Your task to perform on an android device: What is the speed of a jet? Image 0: 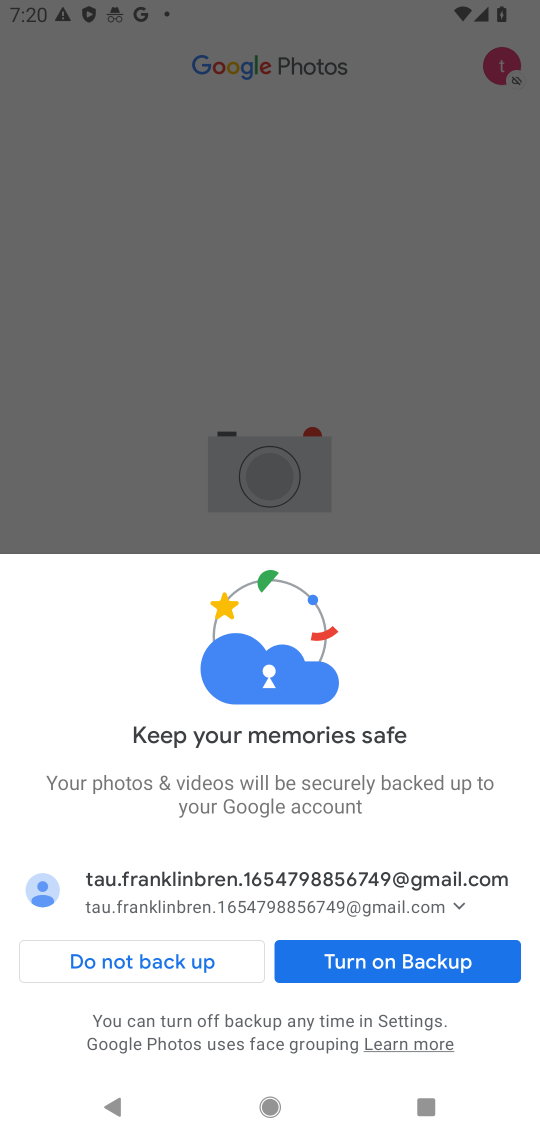
Step 0: press home button
Your task to perform on an android device: What is the speed of a jet? Image 1: 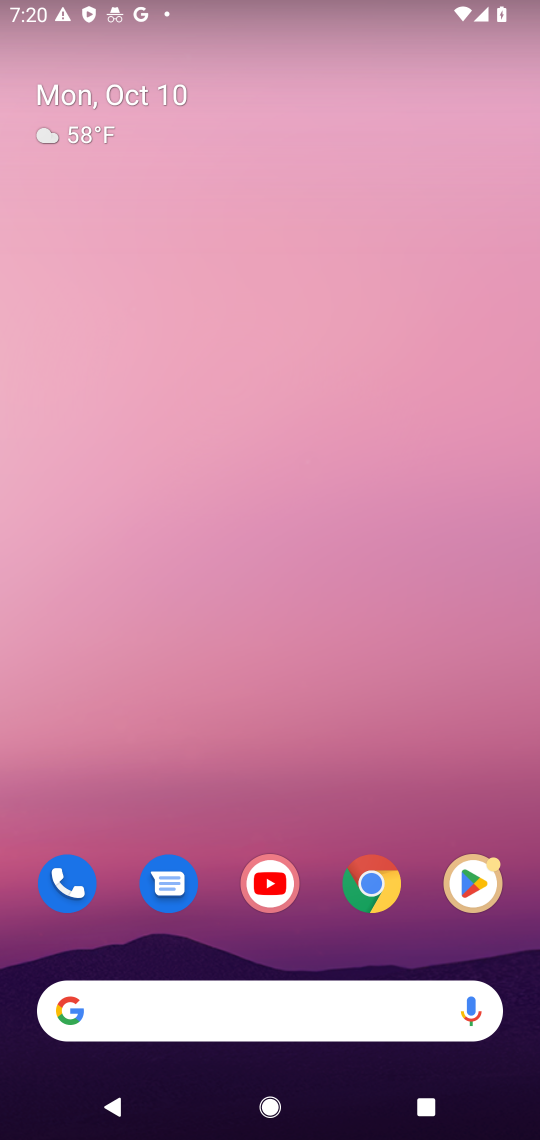
Step 1: drag from (401, 937) to (412, 869)
Your task to perform on an android device: What is the speed of a jet? Image 2: 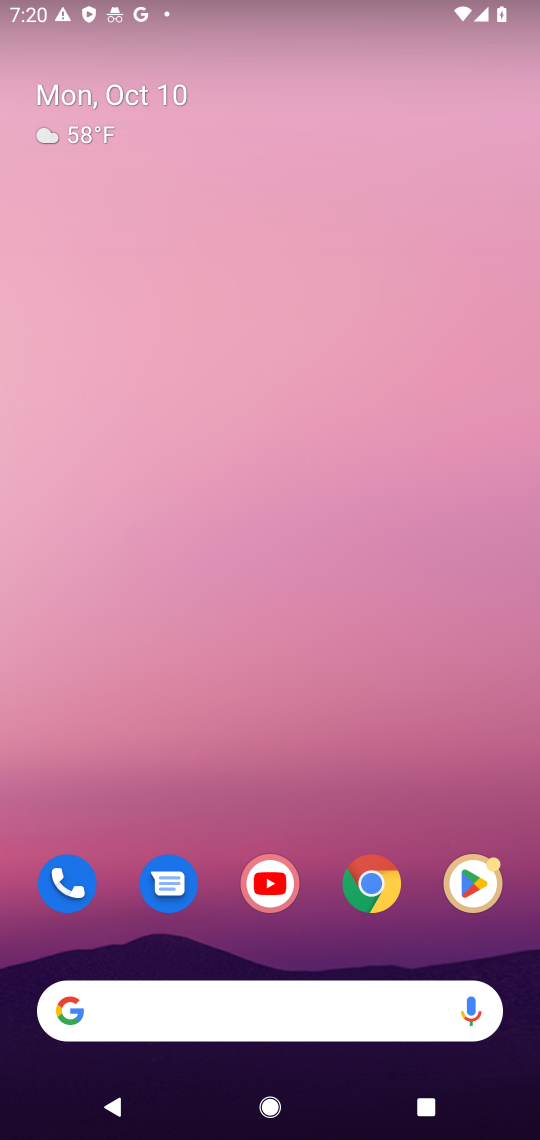
Step 2: drag from (364, 983) to (310, 227)
Your task to perform on an android device: What is the speed of a jet? Image 3: 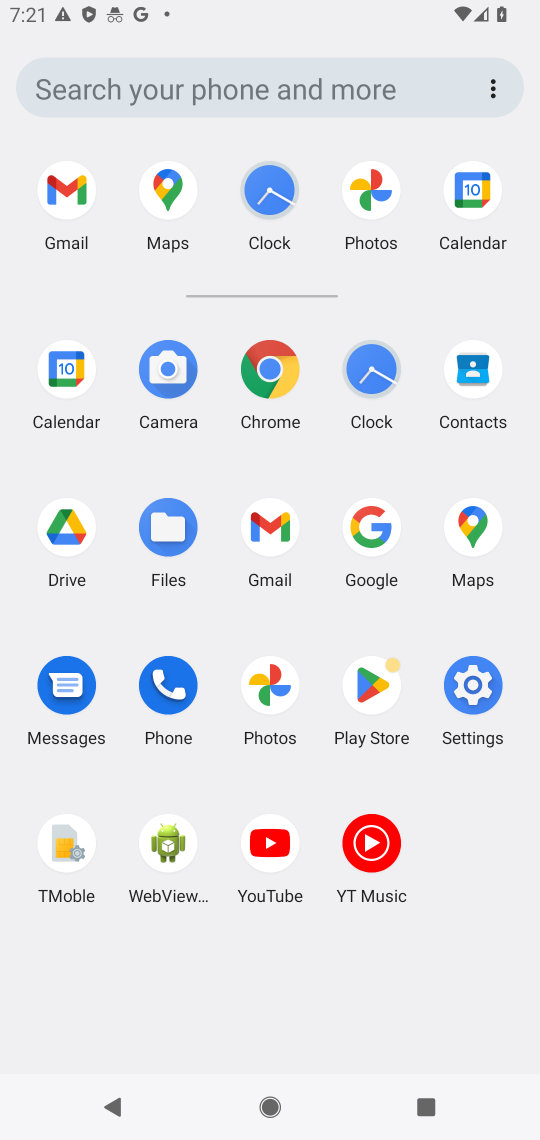
Step 3: click (371, 567)
Your task to perform on an android device: What is the speed of a jet? Image 4: 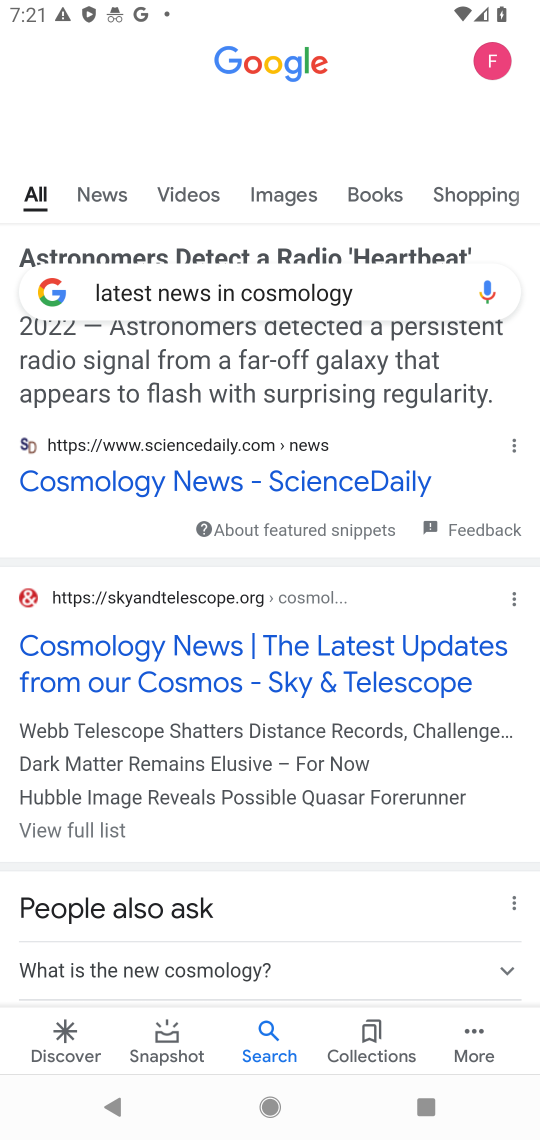
Step 4: click (448, 281)
Your task to perform on an android device: What is the speed of a jet? Image 5: 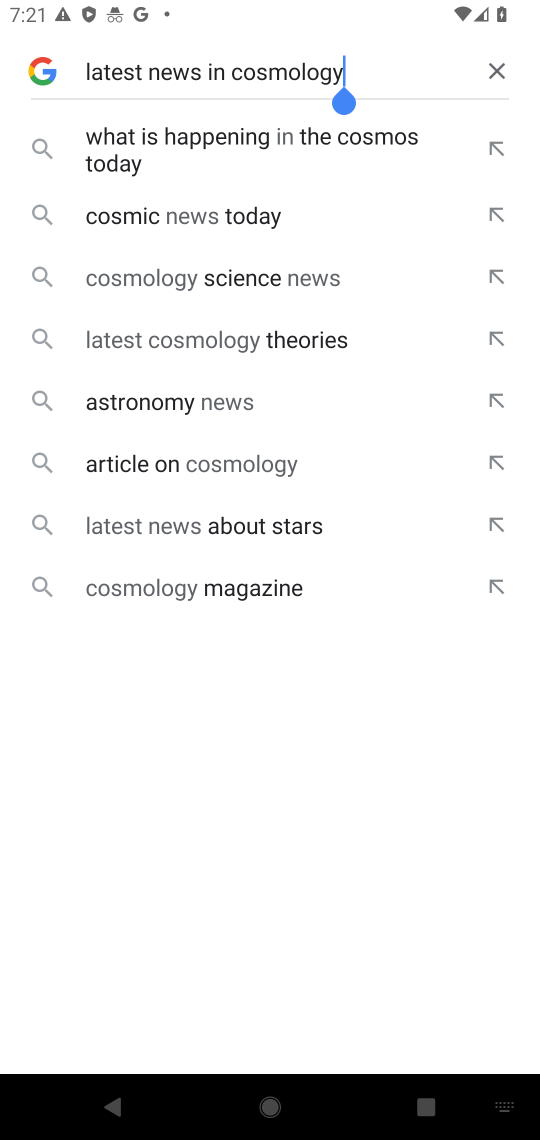
Step 5: click (497, 72)
Your task to perform on an android device: What is the speed of a jet? Image 6: 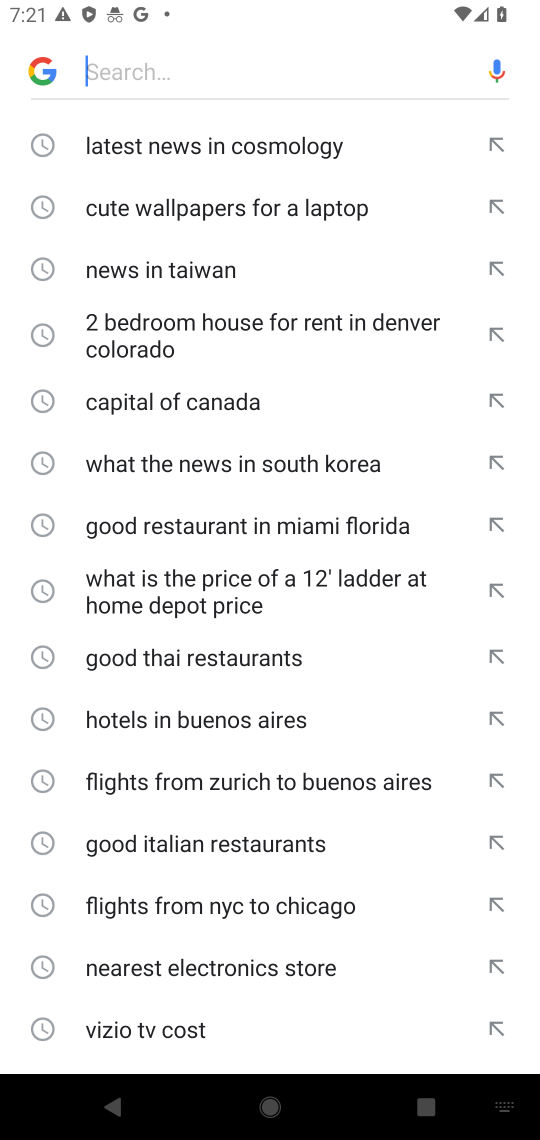
Step 6: type "What is the speed of a jet?"
Your task to perform on an android device: What is the speed of a jet? Image 7: 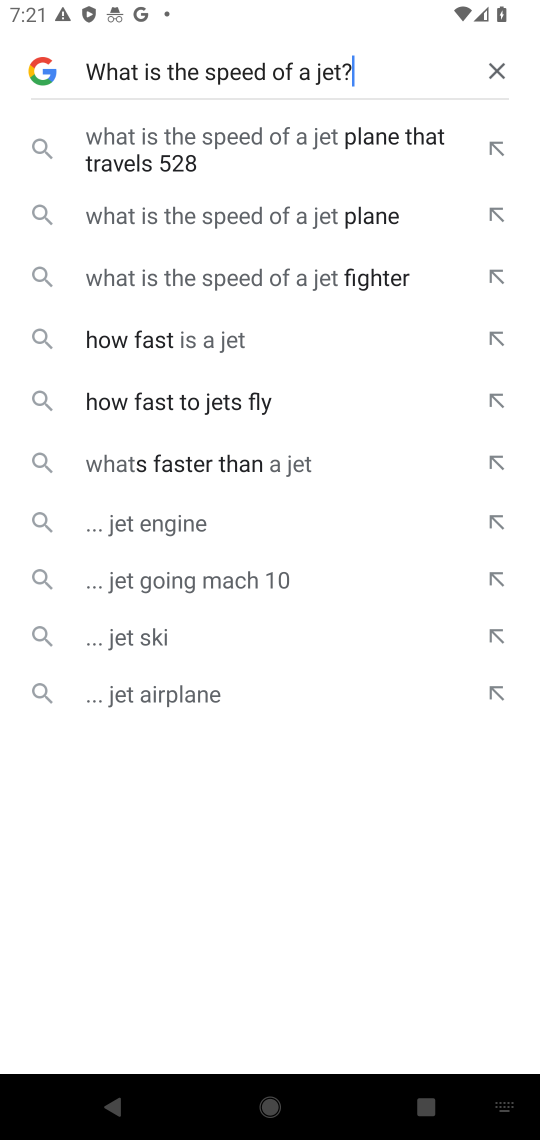
Step 7: click (287, 336)
Your task to perform on an android device: What is the speed of a jet? Image 8: 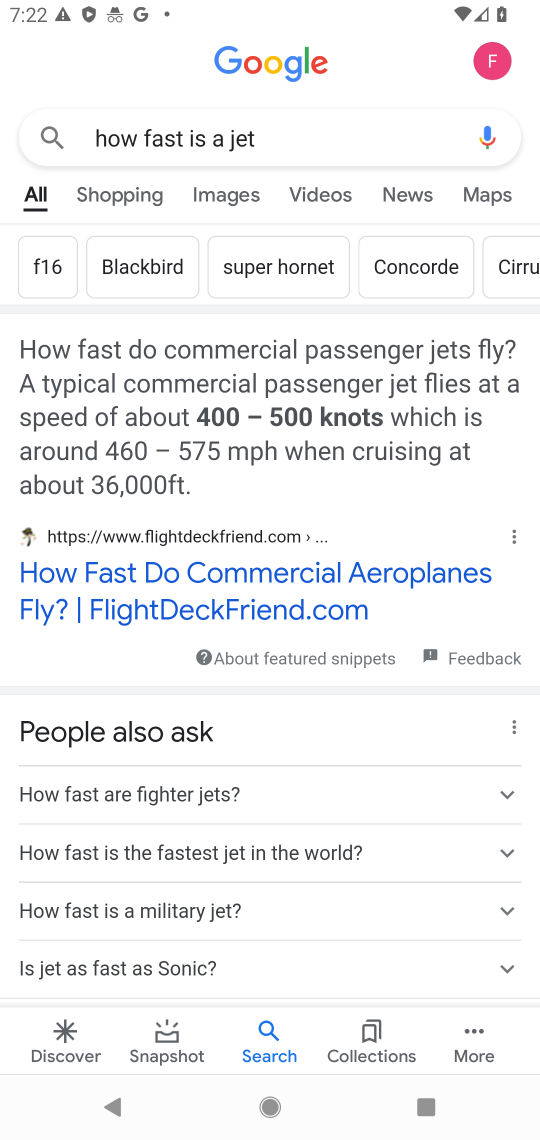
Step 8: task complete